Your task to perform on an android device: What's the weather going to be tomorrow? Image 0: 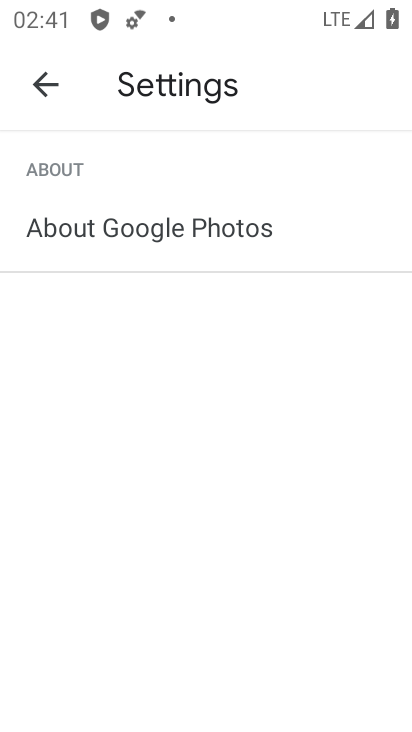
Step 0: press home button
Your task to perform on an android device: What's the weather going to be tomorrow? Image 1: 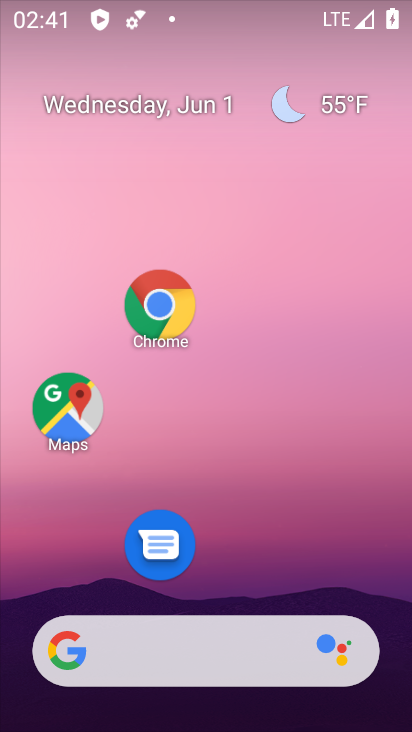
Step 1: click (178, 668)
Your task to perform on an android device: What's the weather going to be tomorrow? Image 2: 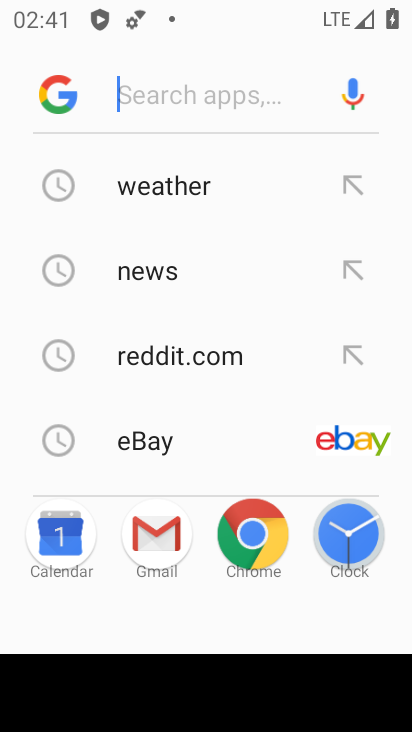
Step 2: click (184, 188)
Your task to perform on an android device: What's the weather going to be tomorrow? Image 3: 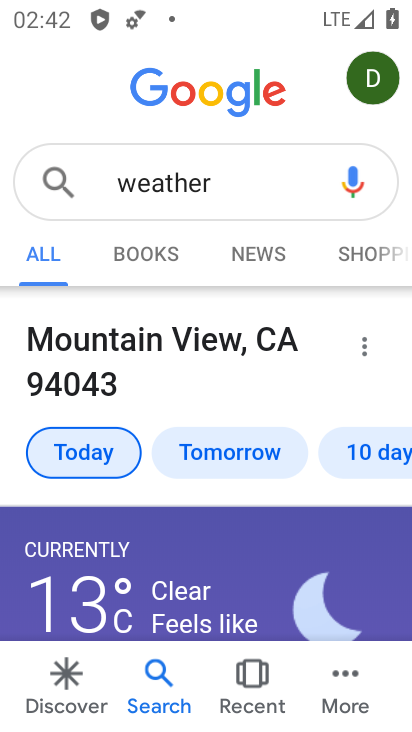
Step 3: click (202, 453)
Your task to perform on an android device: What's the weather going to be tomorrow? Image 4: 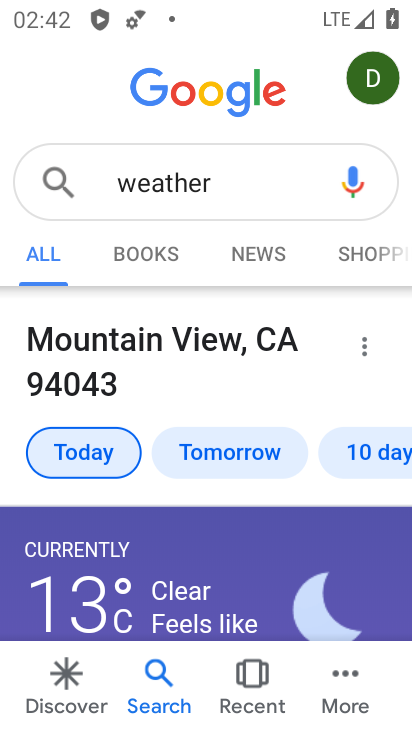
Step 4: click (225, 454)
Your task to perform on an android device: What's the weather going to be tomorrow? Image 5: 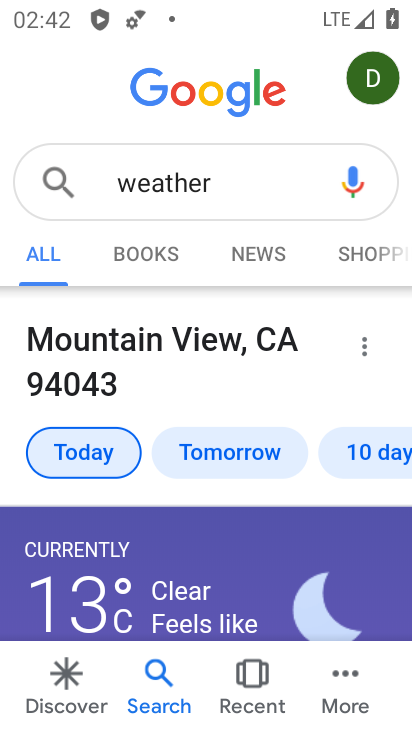
Step 5: click (225, 454)
Your task to perform on an android device: What's the weather going to be tomorrow? Image 6: 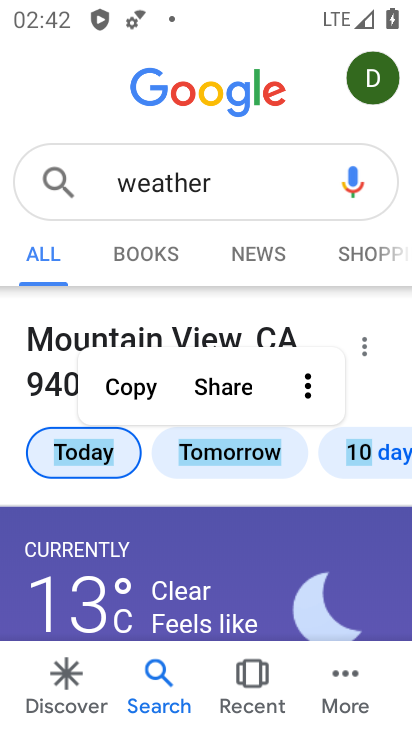
Step 6: click (225, 454)
Your task to perform on an android device: What's the weather going to be tomorrow? Image 7: 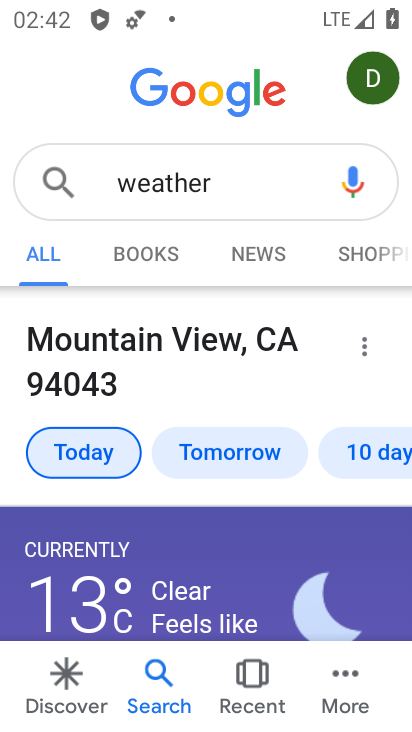
Step 7: task complete